Your task to perform on an android device: change your default location settings in chrome Image 0: 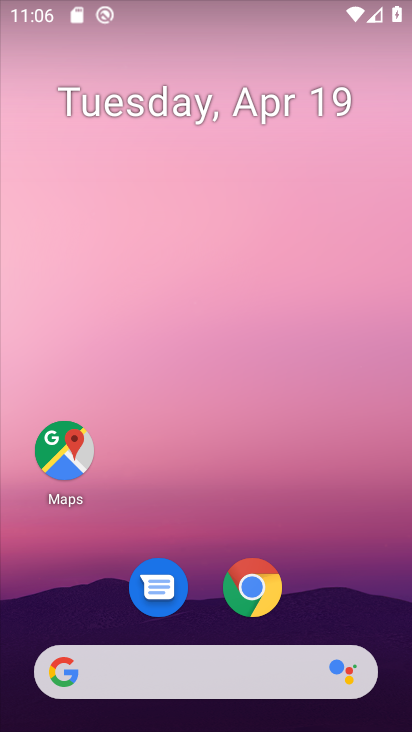
Step 0: click (257, 593)
Your task to perform on an android device: change your default location settings in chrome Image 1: 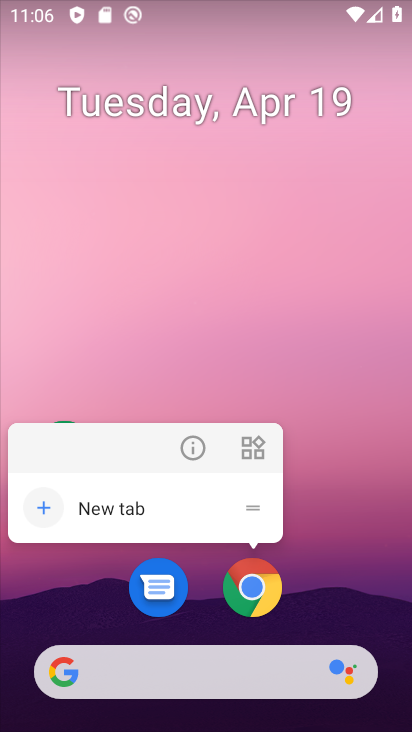
Step 1: click (264, 595)
Your task to perform on an android device: change your default location settings in chrome Image 2: 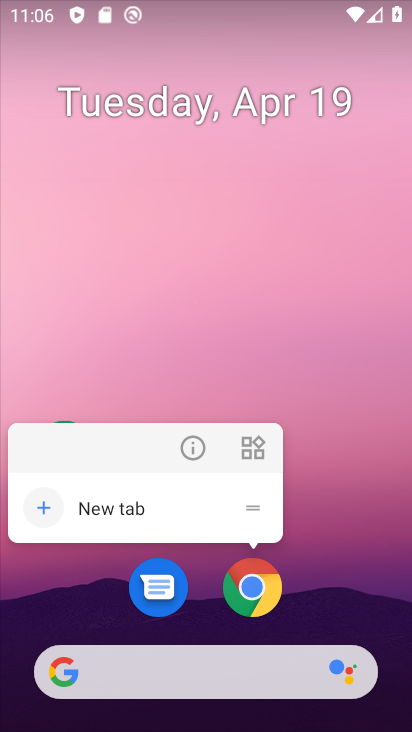
Step 2: click (250, 591)
Your task to perform on an android device: change your default location settings in chrome Image 3: 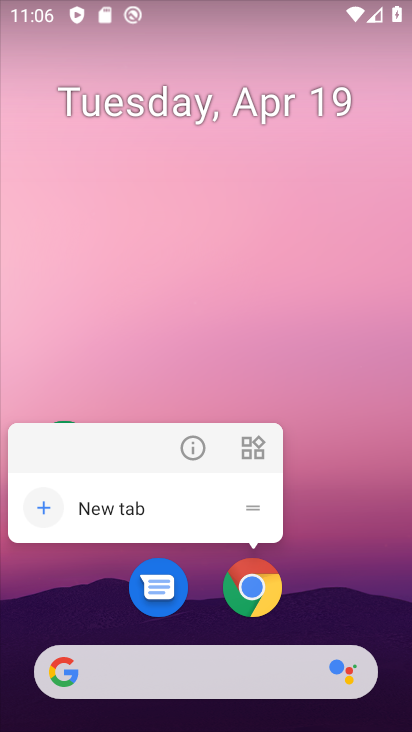
Step 3: click (253, 584)
Your task to perform on an android device: change your default location settings in chrome Image 4: 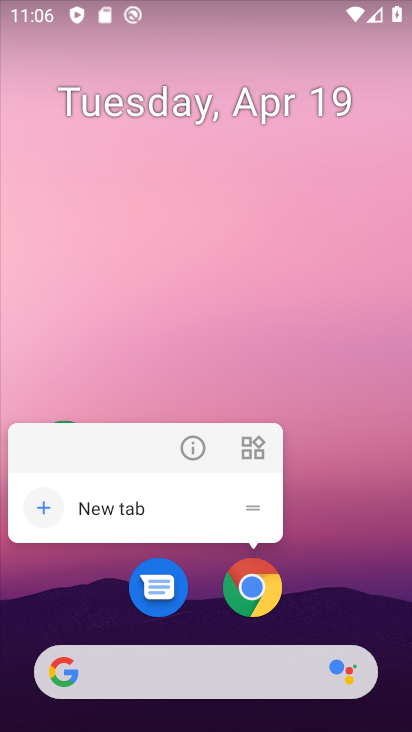
Step 4: click (255, 594)
Your task to perform on an android device: change your default location settings in chrome Image 5: 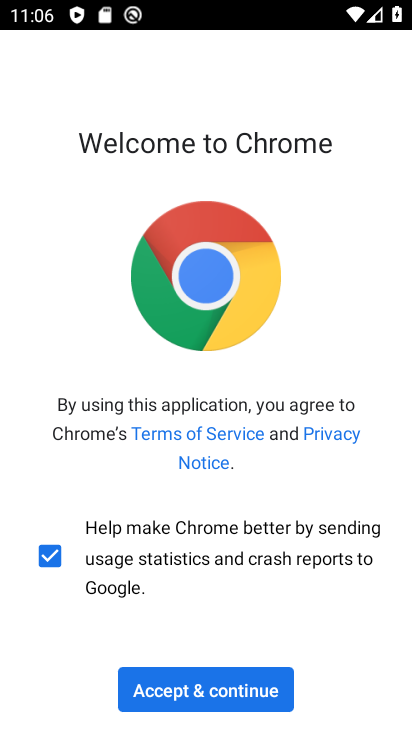
Step 5: click (140, 700)
Your task to perform on an android device: change your default location settings in chrome Image 6: 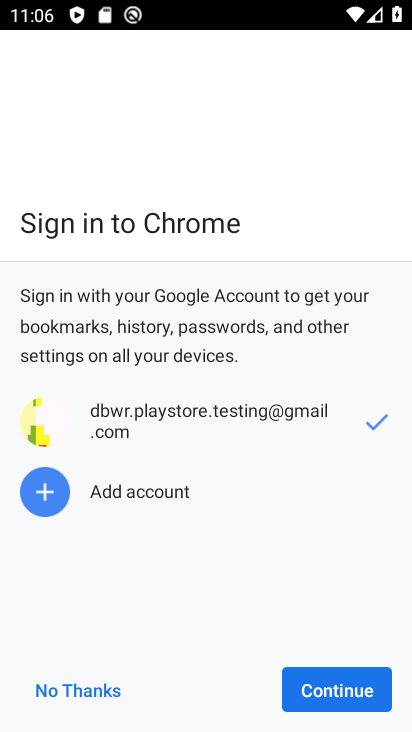
Step 6: click (320, 689)
Your task to perform on an android device: change your default location settings in chrome Image 7: 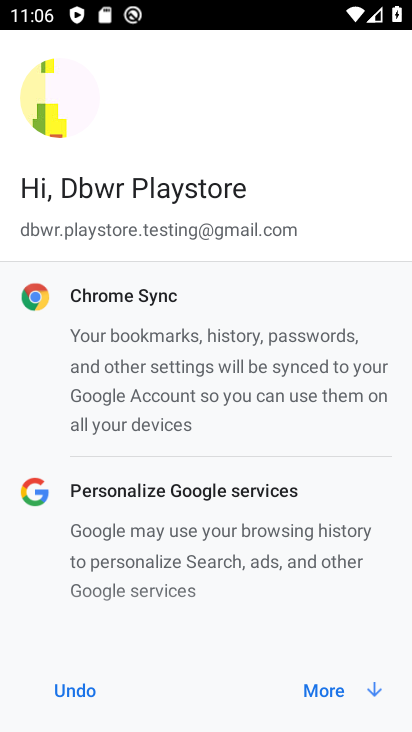
Step 7: click (311, 692)
Your task to perform on an android device: change your default location settings in chrome Image 8: 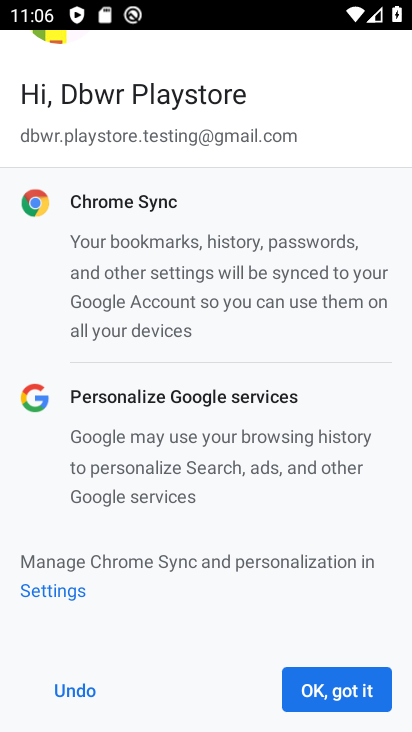
Step 8: click (314, 695)
Your task to perform on an android device: change your default location settings in chrome Image 9: 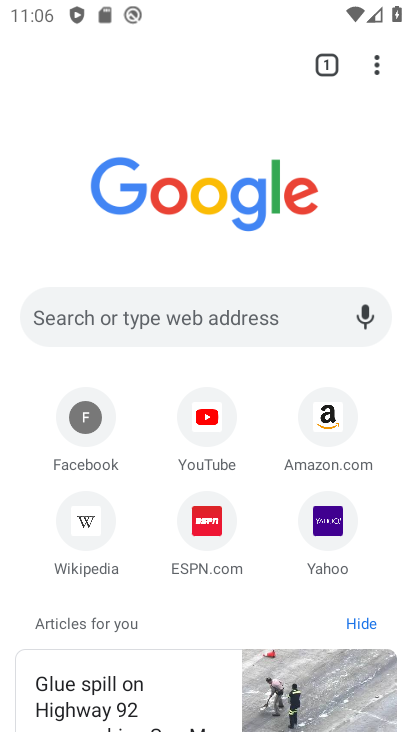
Step 9: drag from (378, 65) to (209, 550)
Your task to perform on an android device: change your default location settings in chrome Image 10: 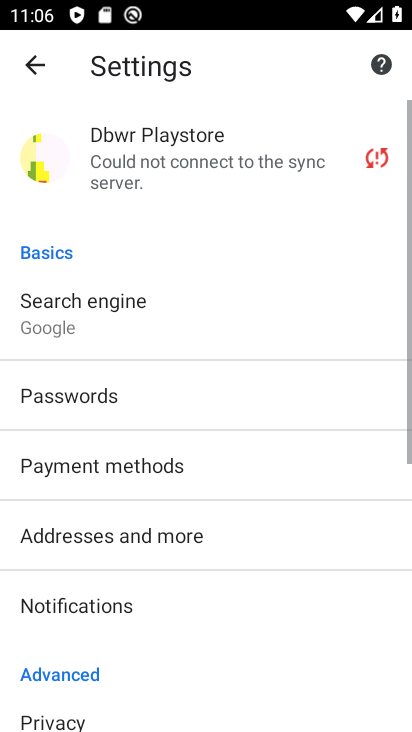
Step 10: drag from (178, 650) to (182, 266)
Your task to perform on an android device: change your default location settings in chrome Image 11: 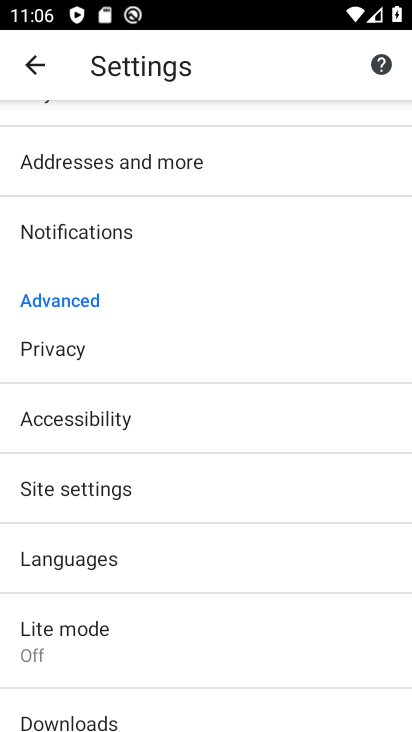
Step 11: click (103, 493)
Your task to perform on an android device: change your default location settings in chrome Image 12: 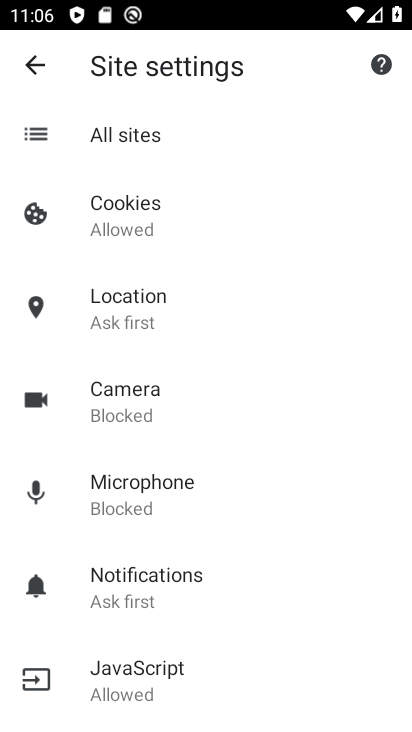
Step 12: drag from (193, 360) to (223, 196)
Your task to perform on an android device: change your default location settings in chrome Image 13: 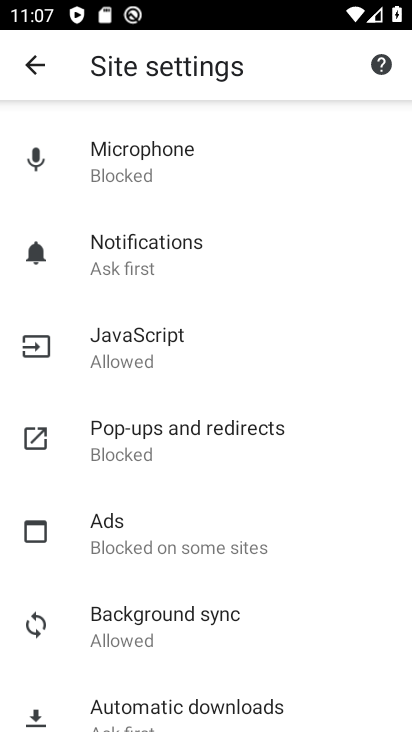
Step 13: drag from (196, 699) to (211, 312)
Your task to perform on an android device: change your default location settings in chrome Image 14: 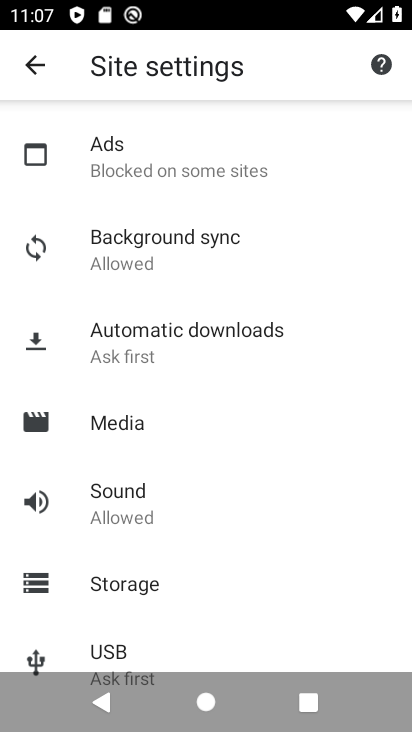
Step 14: drag from (175, 605) to (257, 656)
Your task to perform on an android device: change your default location settings in chrome Image 15: 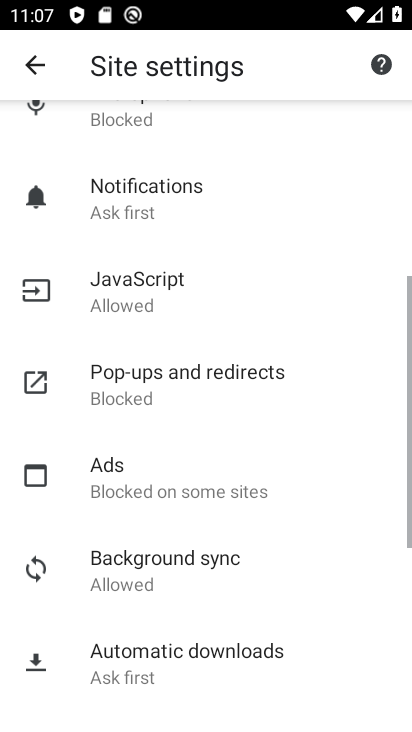
Step 15: drag from (186, 221) to (210, 524)
Your task to perform on an android device: change your default location settings in chrome Image 16: 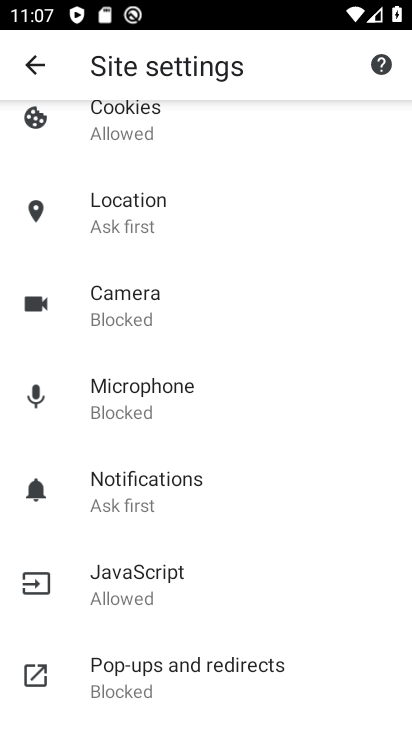
Step 16: click (132, 225)
Your task to perform on an android device: change your default location settings in chrome Image 17: 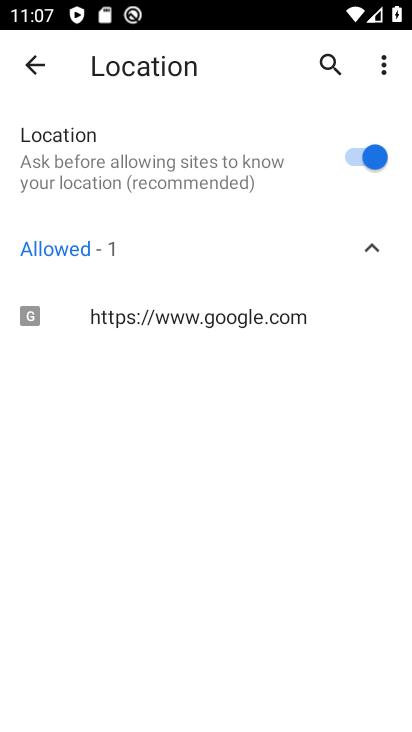
Step 17: click (377, 162)
Your task to perform on an android device: change your default location settings in chrome Image 18: 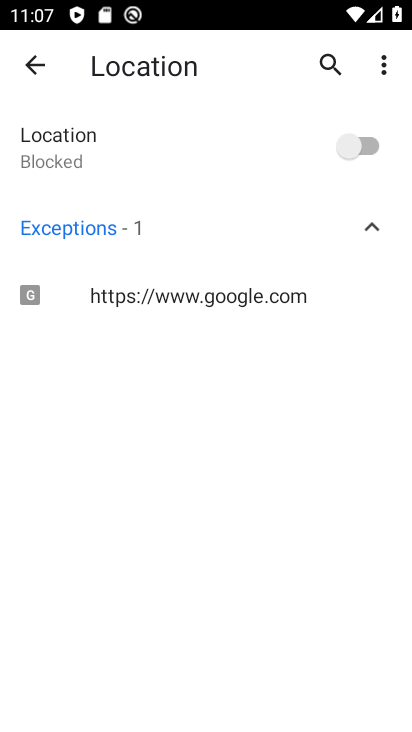
Step 18: task complete